Your task to perform on an android device: open app "PlayWell" (install if not already installed), go to login, and select forgot password Image 0: 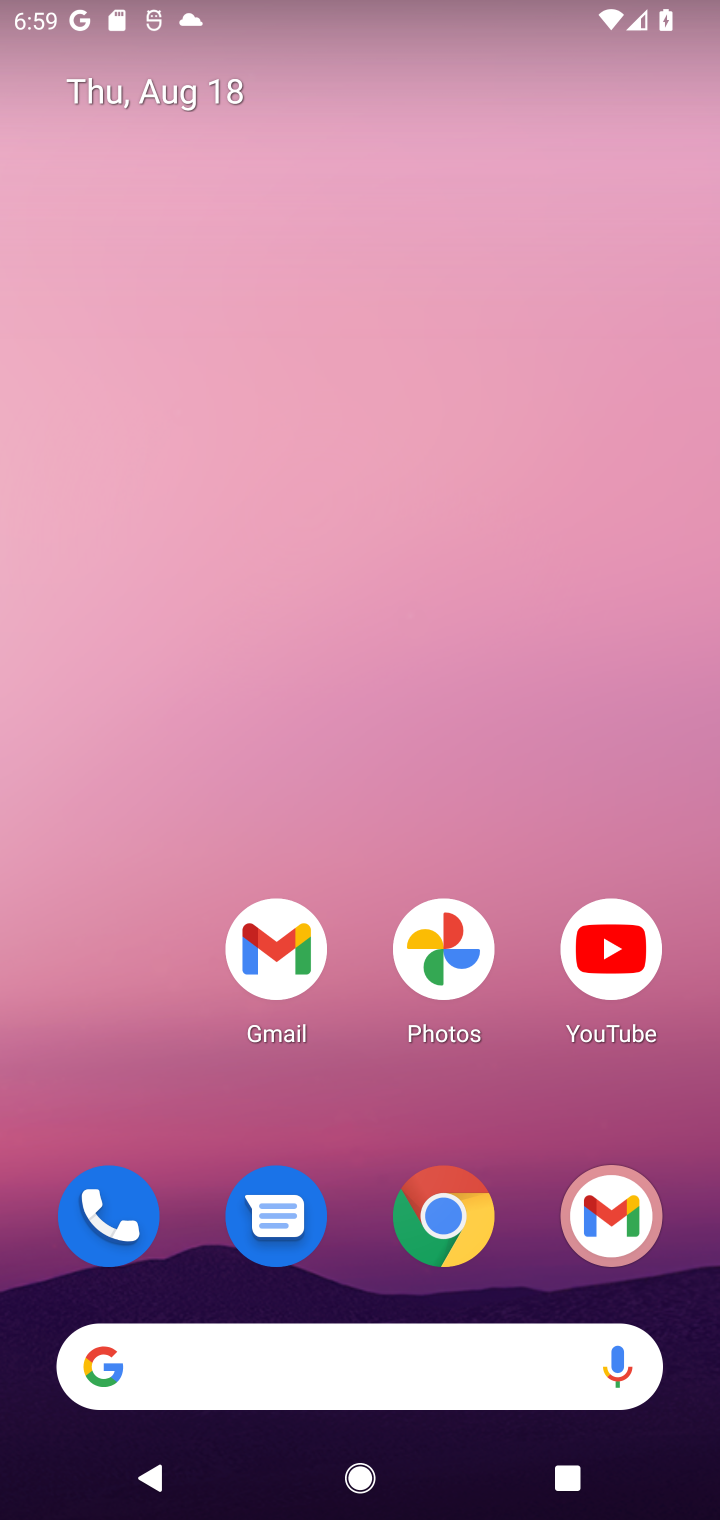
Step 0: drag from (527, 1275) to (518, 545)
Your task to perform on an android device: open app "PlayWell" (install if not already installed), go to login, and select forgot password Image 1: 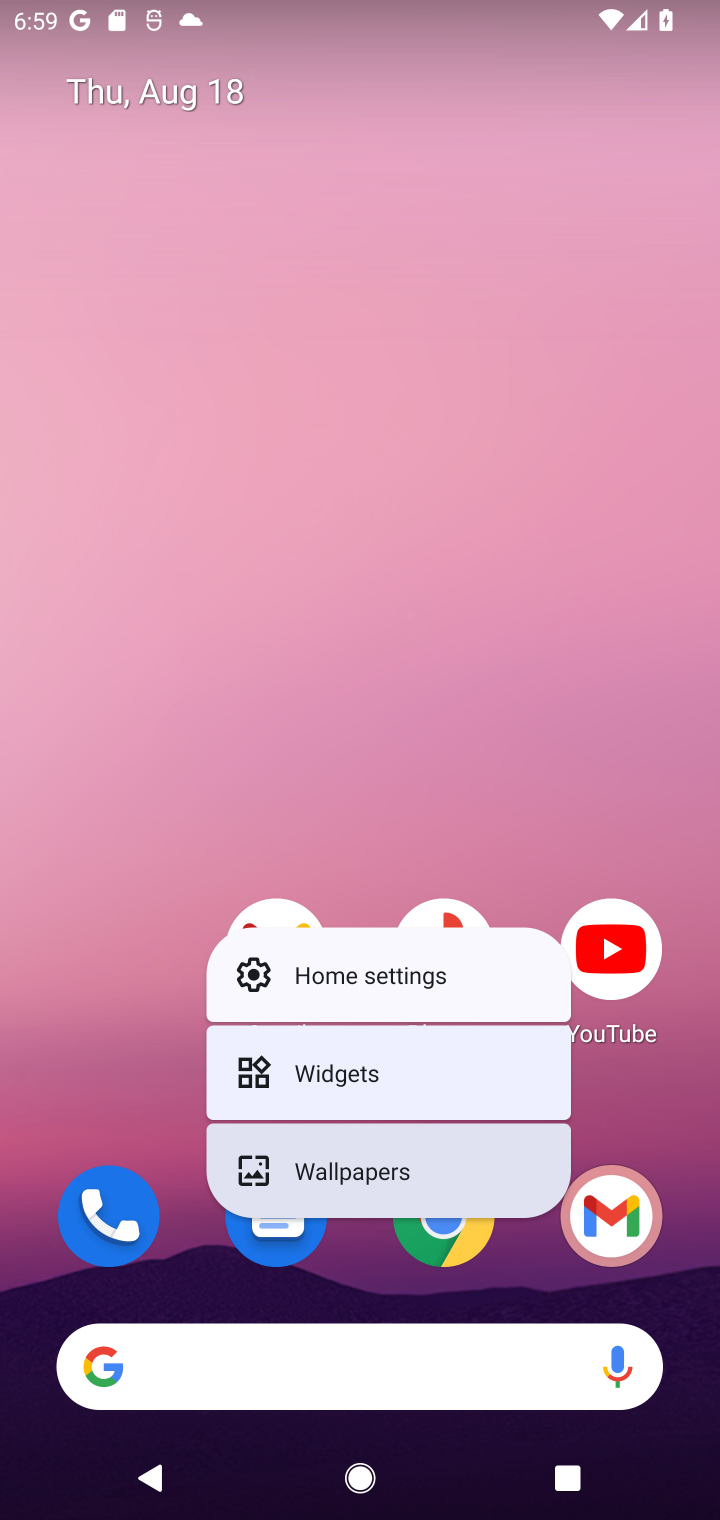
Step 1: drag from (99, 1111) to (282, 262)
Your task to perform on an android device: open app "PlayWell" (install if not already installed), go to login, and select forgot password Image 2: 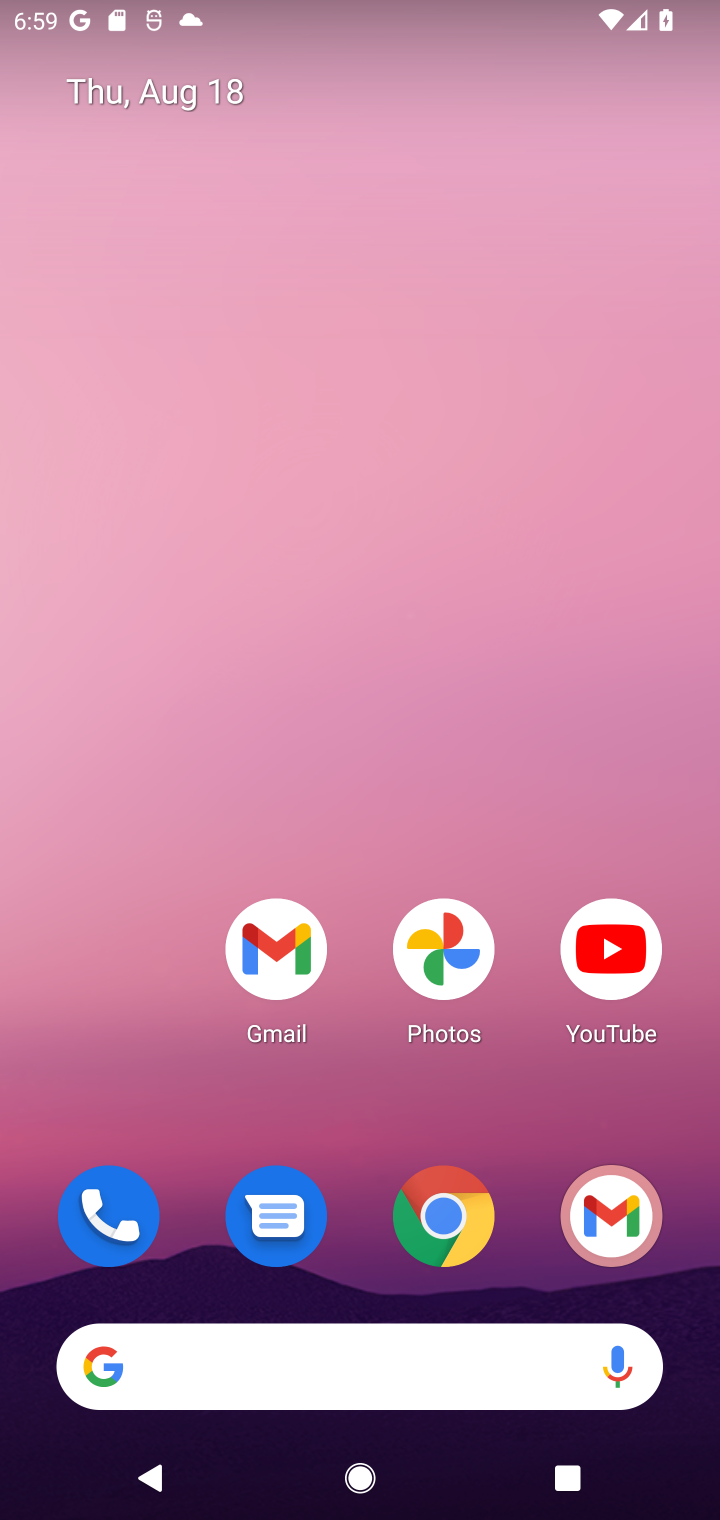
Step 2: drag from (529, 1151) to (509, 127)
Your task to perform on an android device: open app "PlayWell" (install if not already installed), go to login, and select forgot password Image 3: 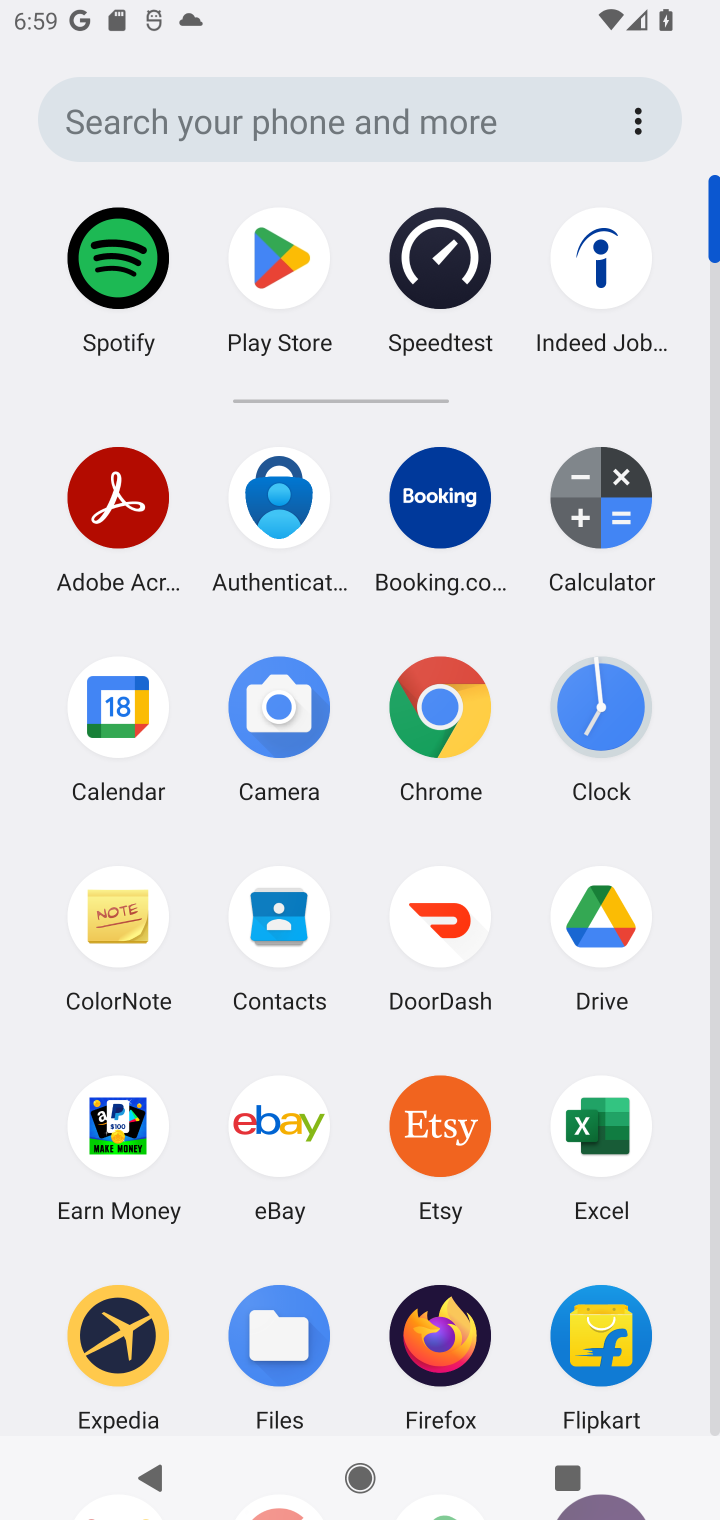
Step 3: drag from (526, 1406) to (520, 578)
Your task to perform on an android device: open app "PlayWell" (install if not already installed), go to login, and select forgot password Image 4: 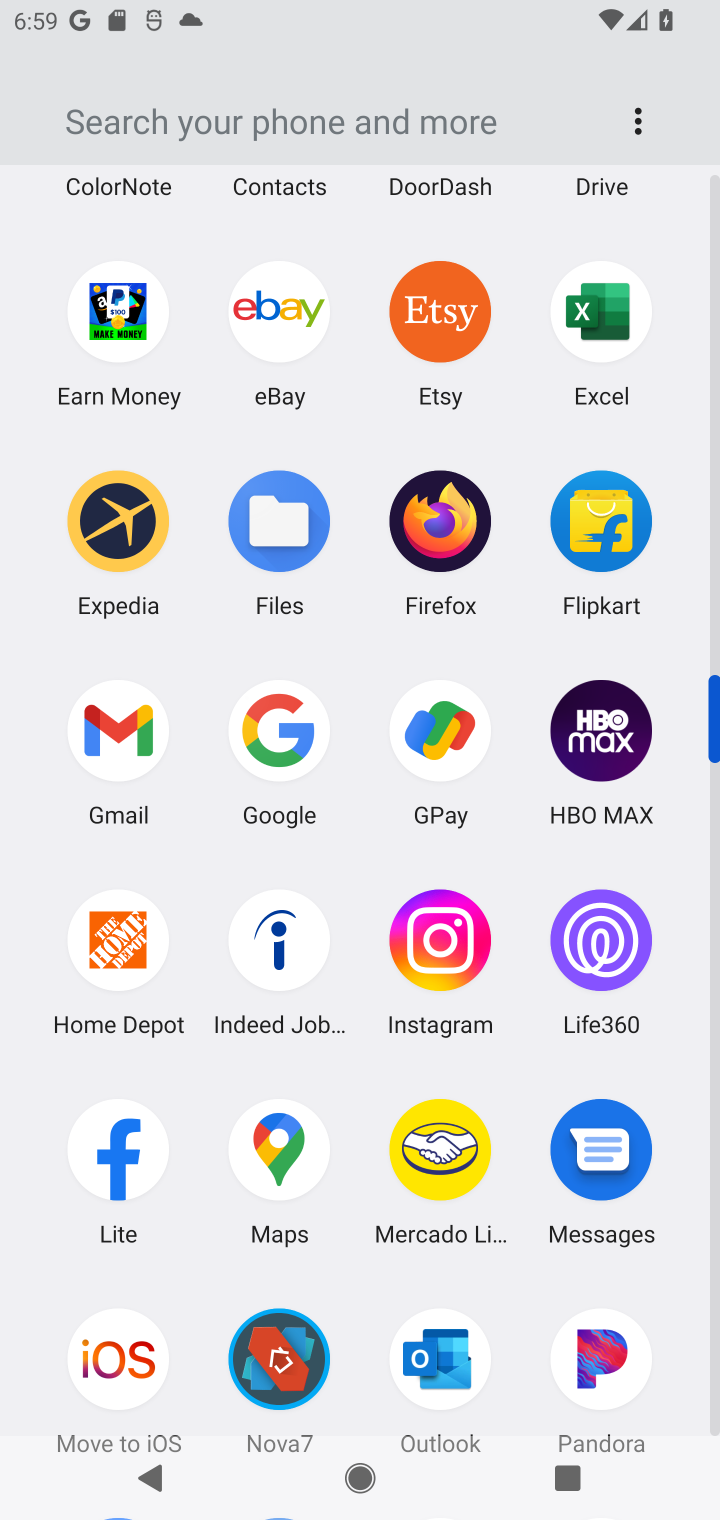
Step 4: drag from (520, 1313) to (510, 672)
Your task to perform on an android device: open app "PlayWell" (install if not already installed), go to login, and select forgot password Image 5: 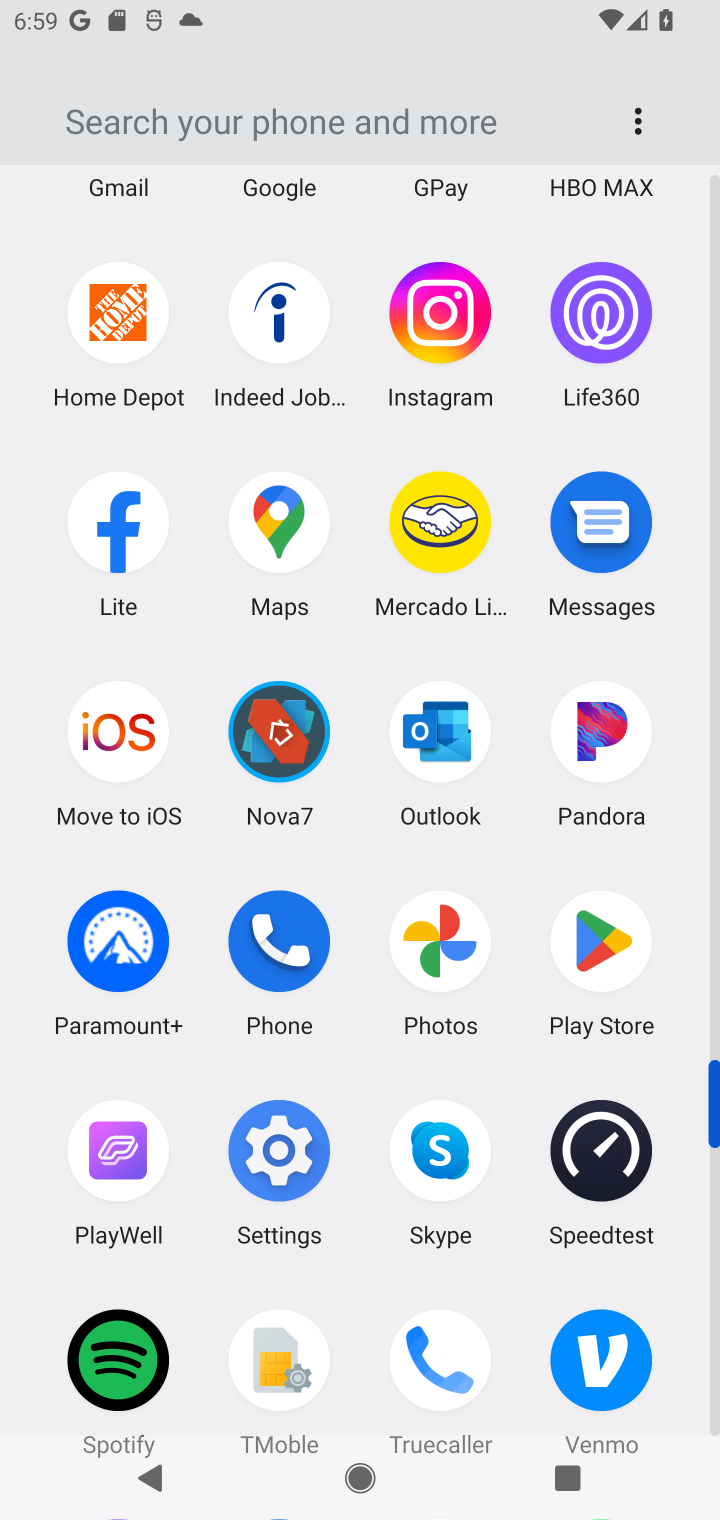
Step 5: click (605, 944)
Your task to perform on an android device: open app "PlayWell" (install if not already installed), go to login, and select forgot password Image 6: 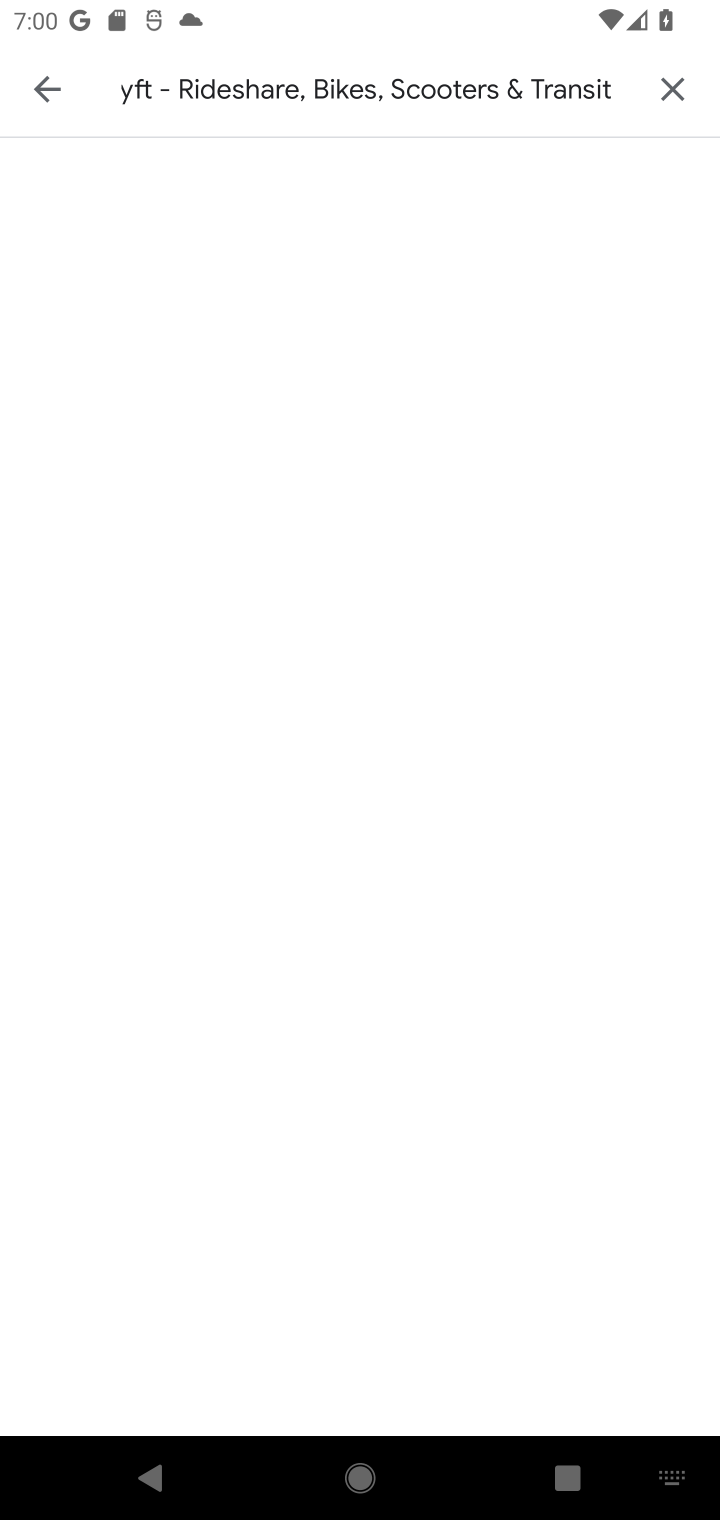
Step 6: click (668, 88)
Your task to perform on an android device: open app "PlayWell" (install if not already installed), go to login, and select forgot password Image 7: 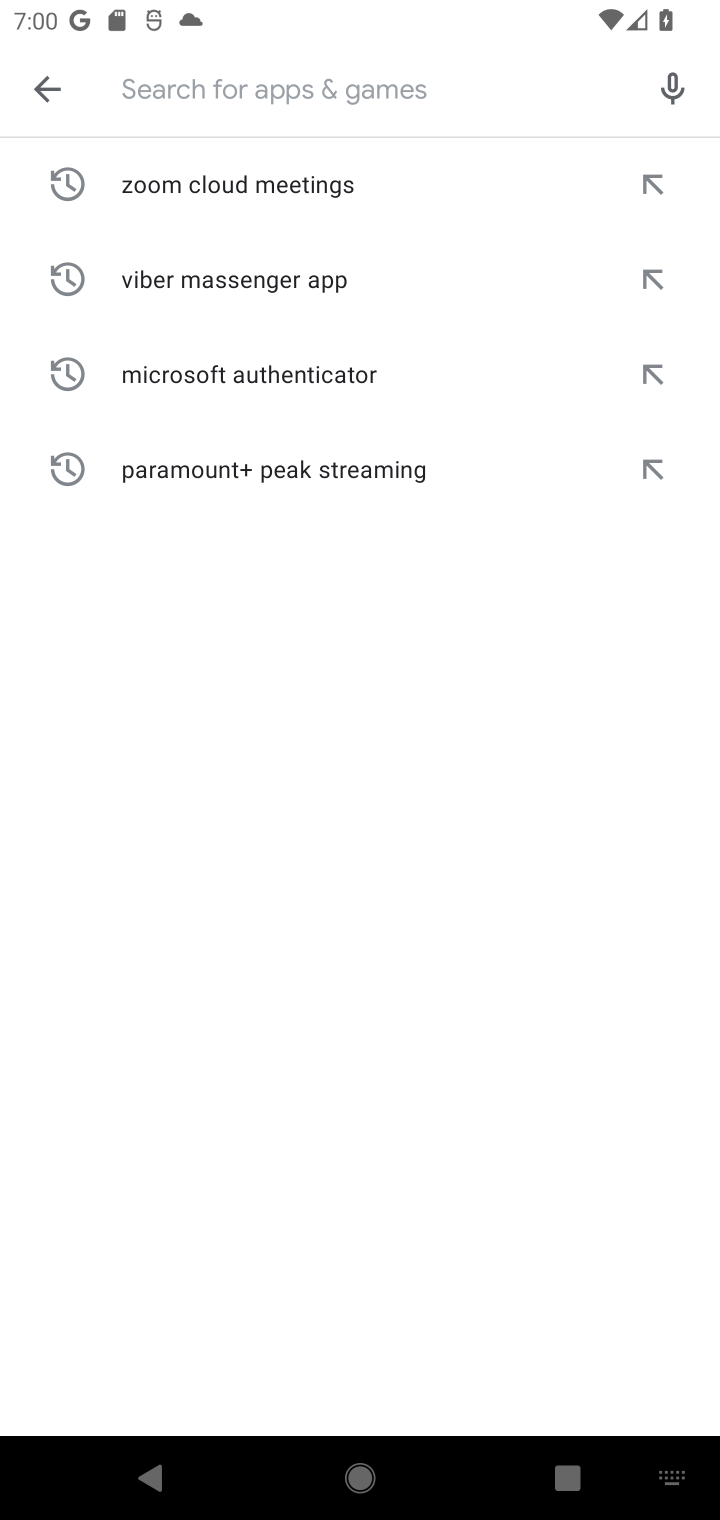
Step 7: type "PlayWell"
Your task to perform on an android device: open app "PlayWell" (install if not already installed), go to login, and select forgot password Image 8: 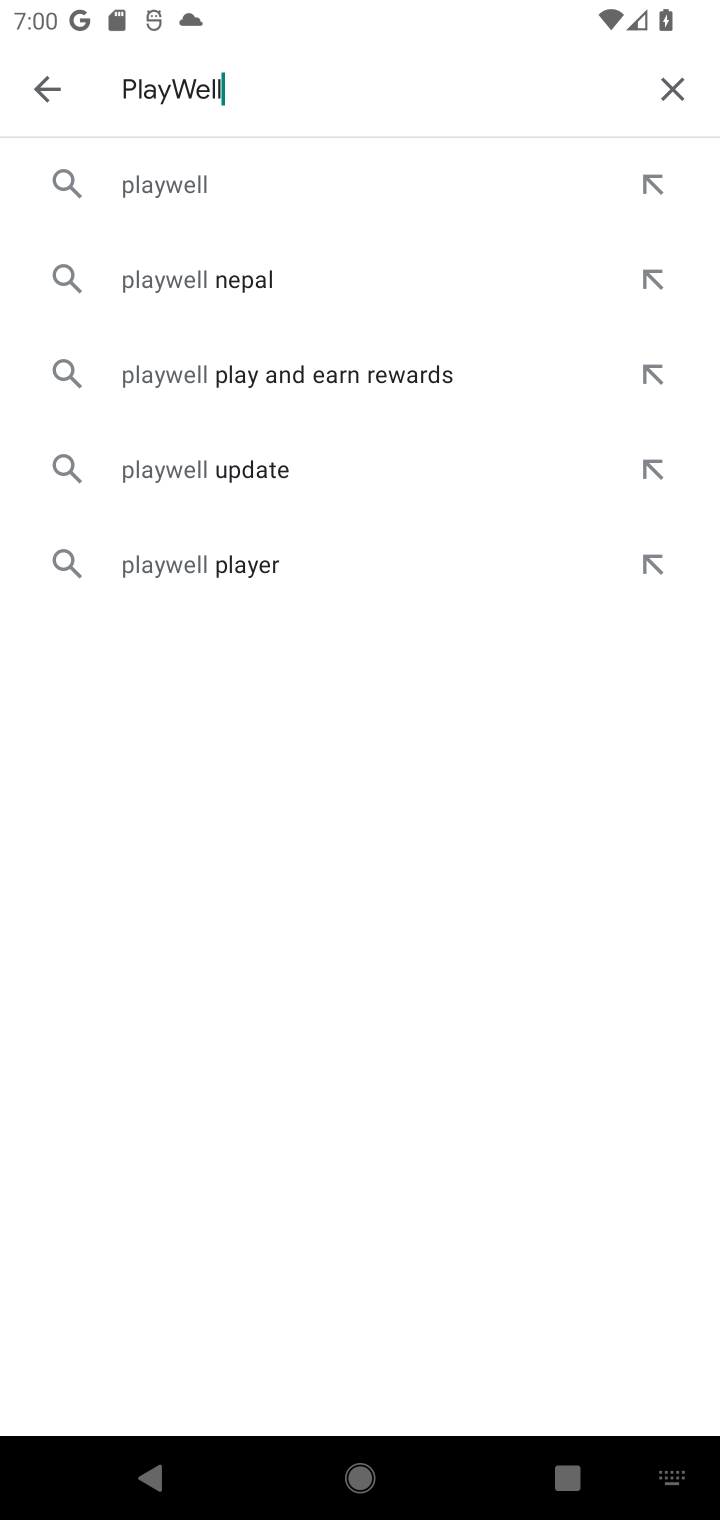
Step 8: click (197, 191)
Your task to perform on an android device: open app "PlayWell" (install if not already installed), go to login, and select forgot password Image 9: 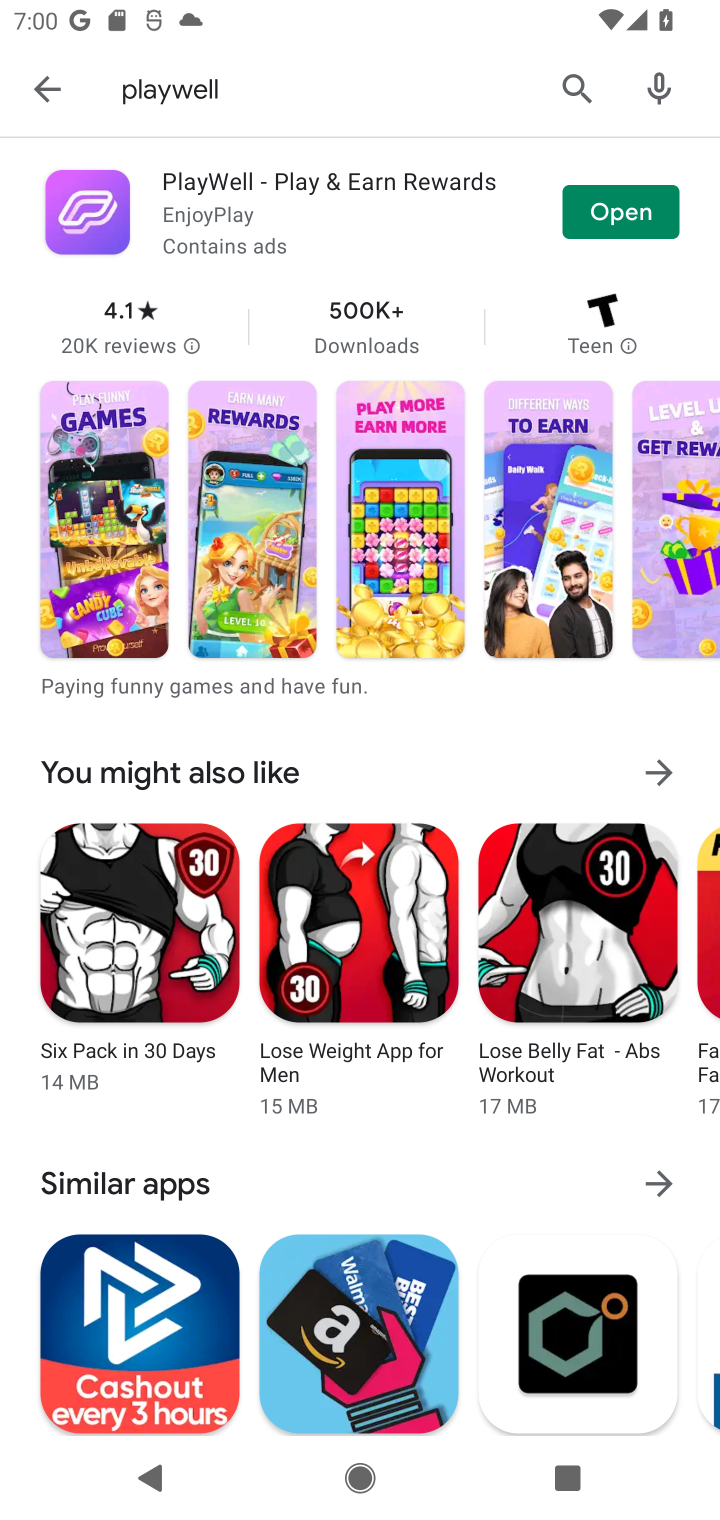
Step 9: click (627, 207)
Your task to perform on an android device: open app "PlayWell" (install if not already installed), go to login, and select forgot password Image 10: 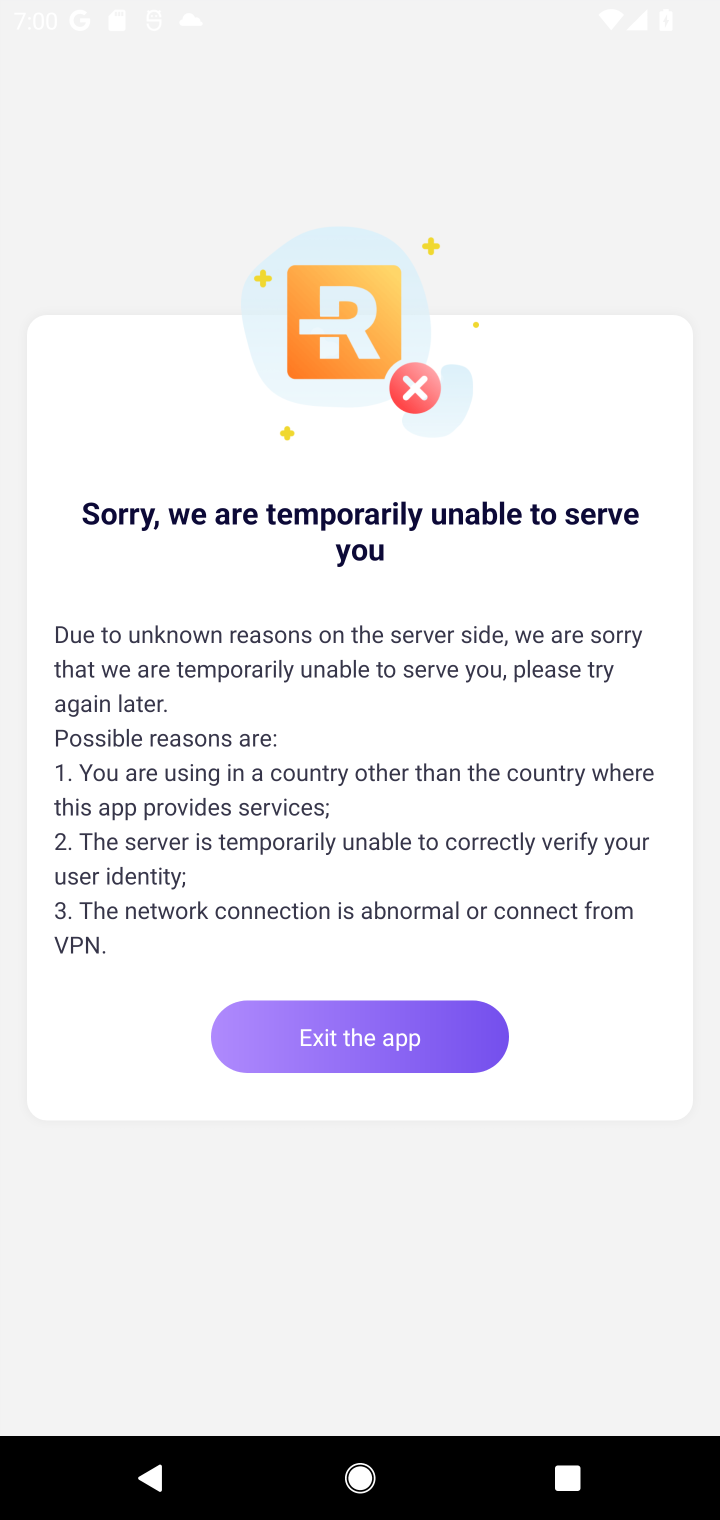
Step 10: task complete